Your task to perform on an android device: Search for sushi restaurants on Maps Image 0: 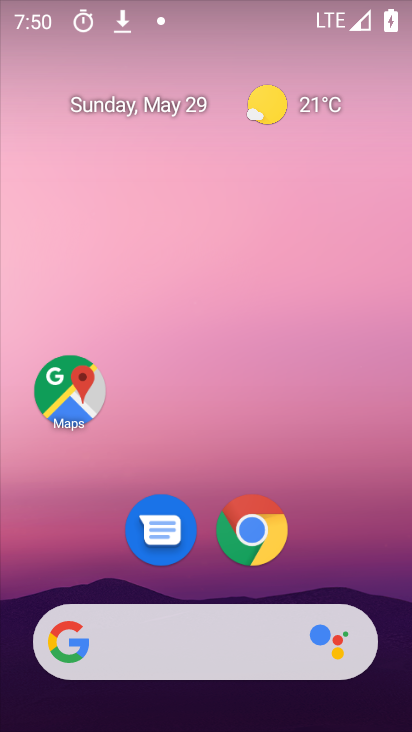
Step 0: drag from (255, 674) to (152, 123)
Your task to perform on an android device: Search for sushi restaurants on Maps Image 1: 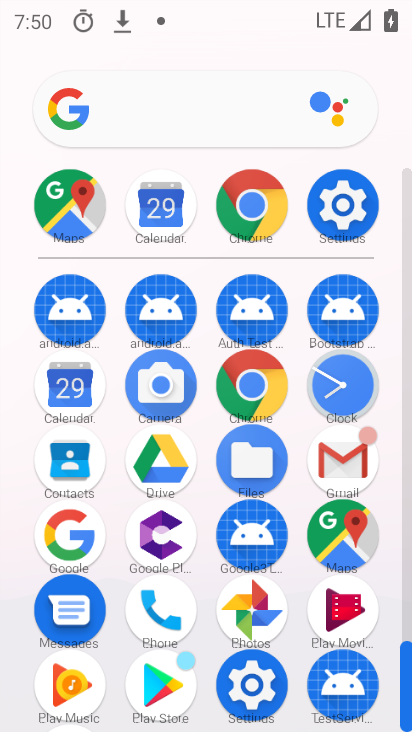
Step 1: click (378, 534)
Your task to perform on an android device: Search for sushi restaurants on Maps Image 2: 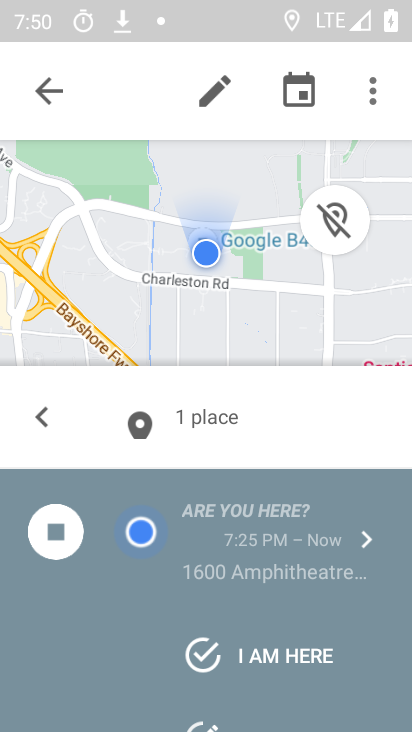
Step 2: click (48, 86)
Your task to perform on an android device: Search for sushi restaurants on Maps Image 3: 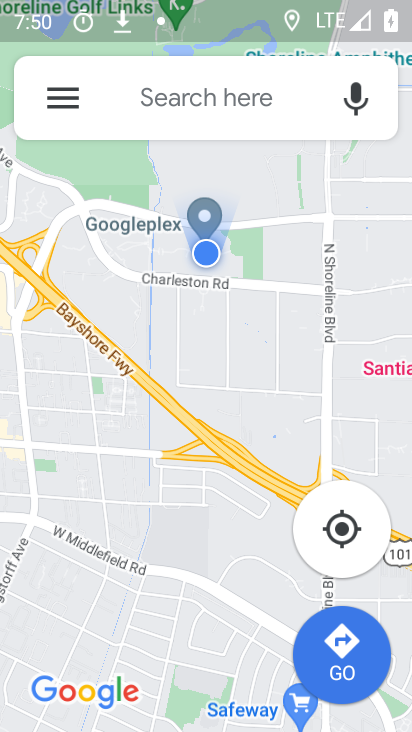
Step 3: click (202, 85)
Your task to perform on an android device: Search for sushi restaurants on Maps Image 4: 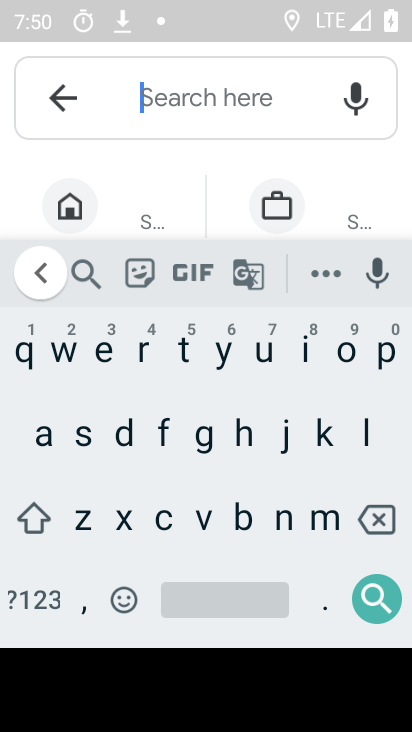
Step 4: click (83, 439)
Your task to perform on an android device: Search for sushi restaurants on Maps Image 5: 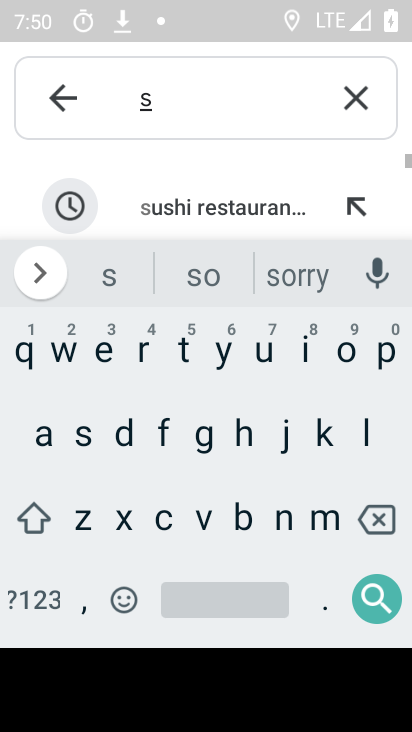
Step 5: click (261, 355)
Your task to perform on an android device: Search for sushi restaurants on Maps Image 6: 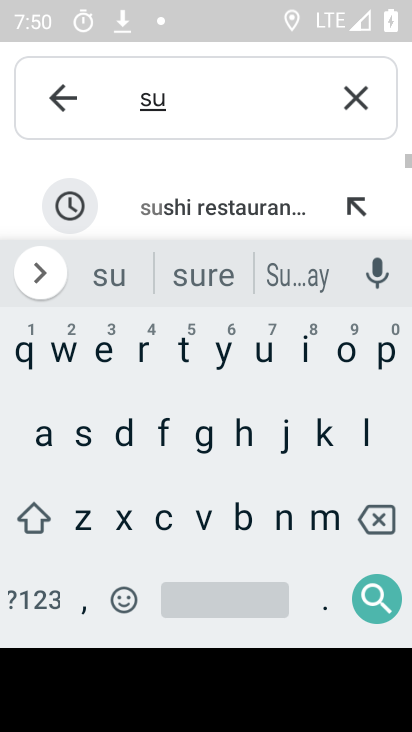
Step 6: click (227, 209)
Your task to perform on an android device: Search for sushi restaurants on Maps Image 7: 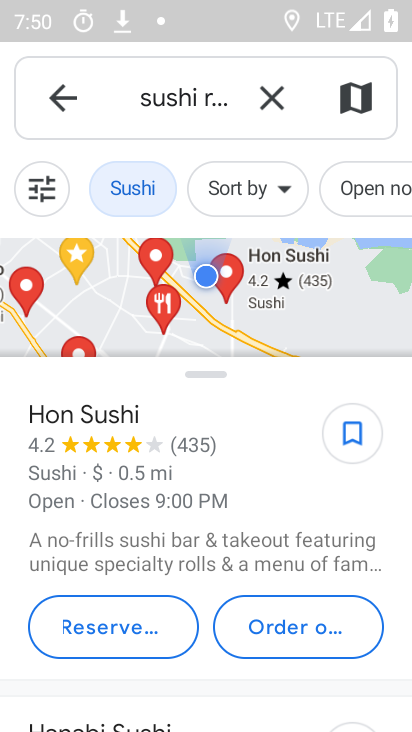
Step 7: click (121, 290)
Your task to perform on an android device: Search for sushi restaurants on Maps Image 8: 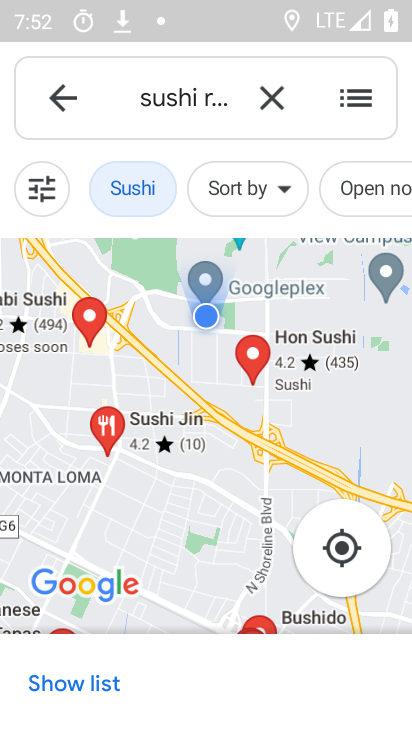
Step 8: task complete